Your task to perform on an android device: Open my contact list Image 0: 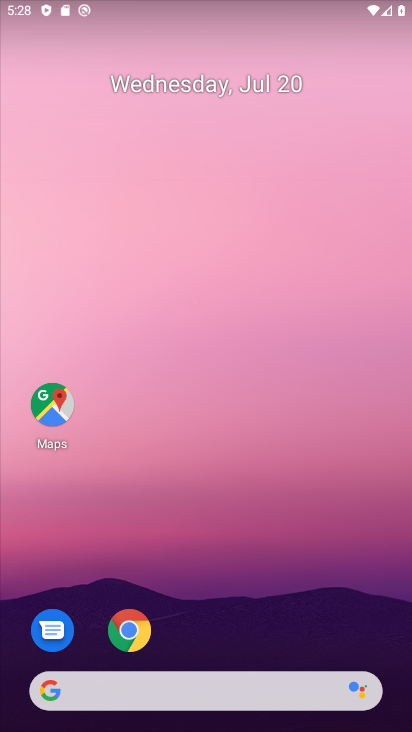
Step 0: drag from (259, 689) to (367, 68)
Your task to perform on an android device: Open my contact list Image 1: 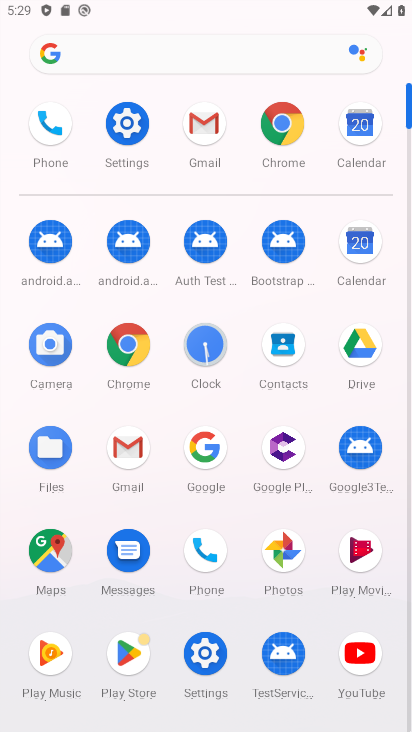
Step 1: click (287, 347)
Your task to perform on an android device: Open my contact list Image 2: 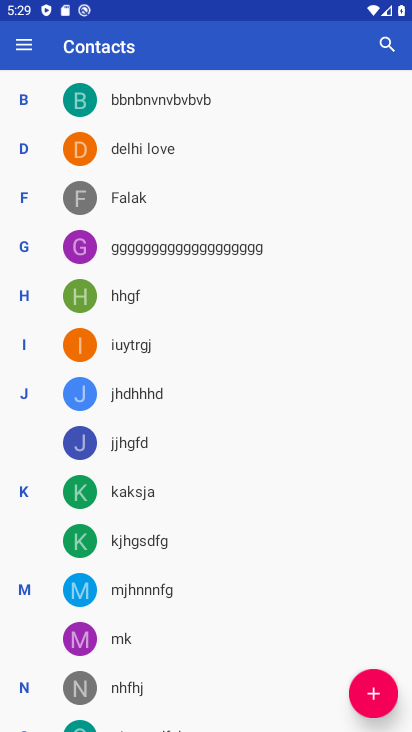
Step 2: task complete